Your task to perform on an android device: Open location settings Image 0: 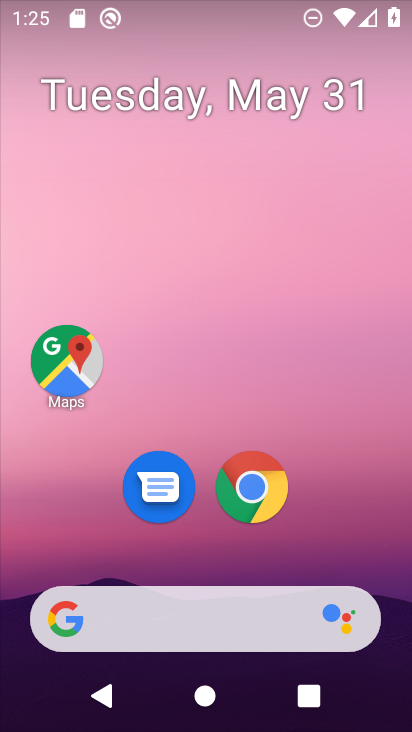
Step 0: drag from (96, 560) to (200, 48)
Your task to perform on an android device: Open location settings Image 1: 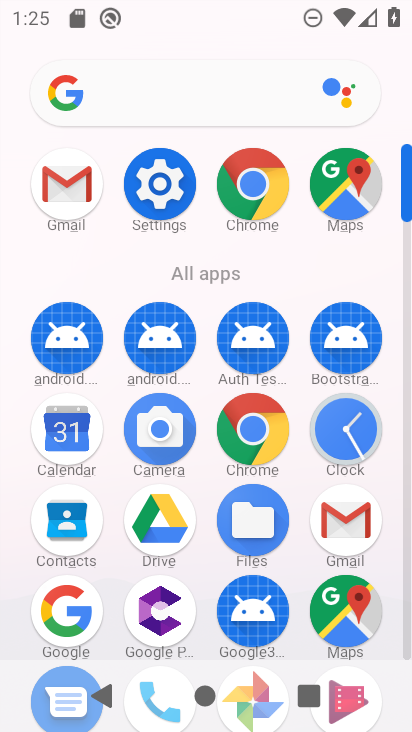
Step 1: drag from (149, 602) to (233, 330)
Your task to perform on an android device: Open location settings Image 2: 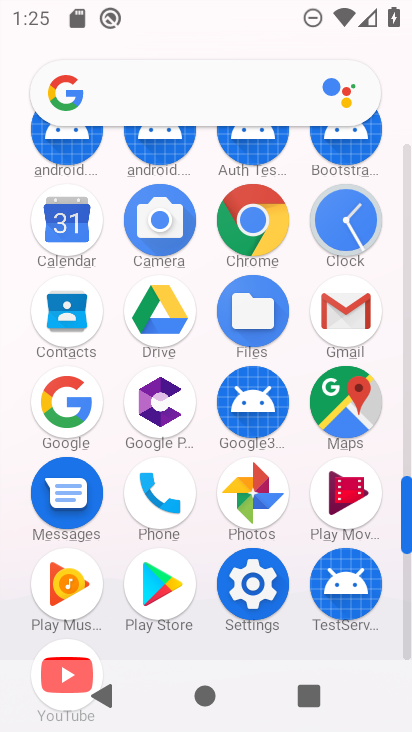
Step 2: click (269, 564)
Your task to perform on an android device: Open location settings Image 3: 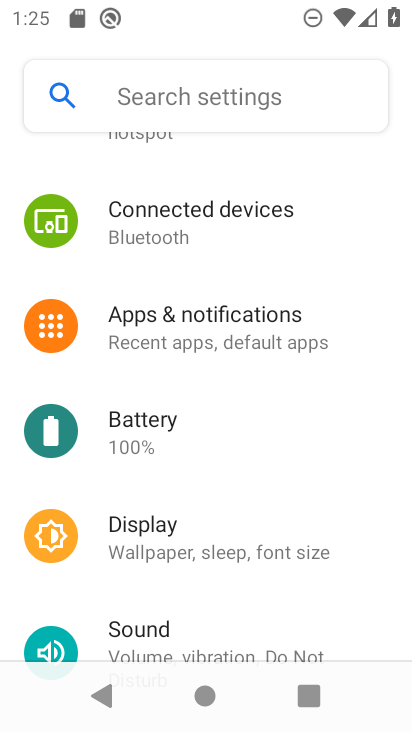
Step 3: drag from (214, 602) to (314, 193)
Your task to perform on an android device: Open location settings Image 4: 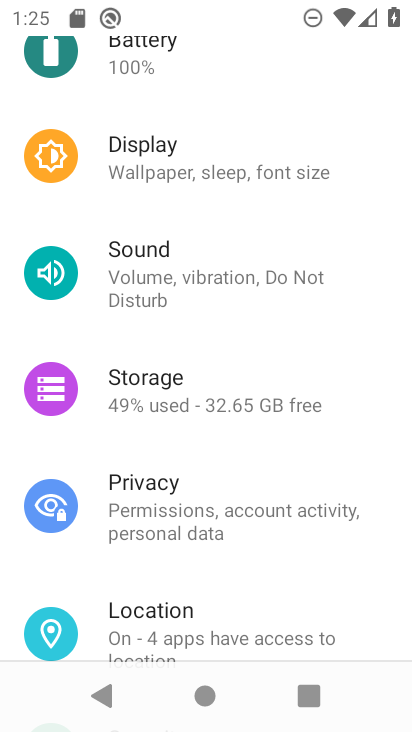
Step 4: click (168, 609)
Your task to perform on an android device: Open location settings Image 5: 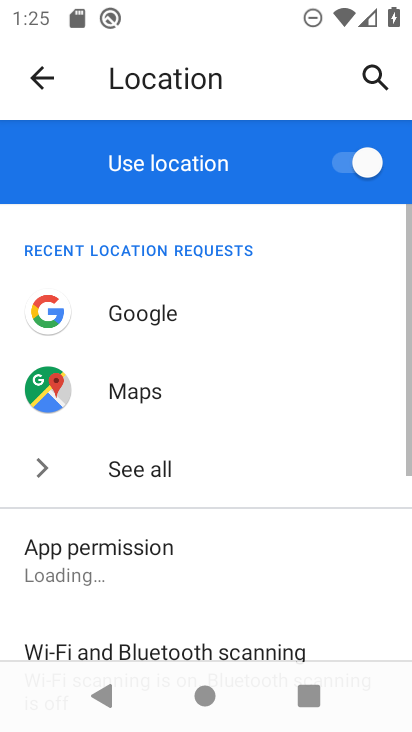
Step 5: task complete